Your task to perform on an android device: find which apps use the phone's location Image 0: 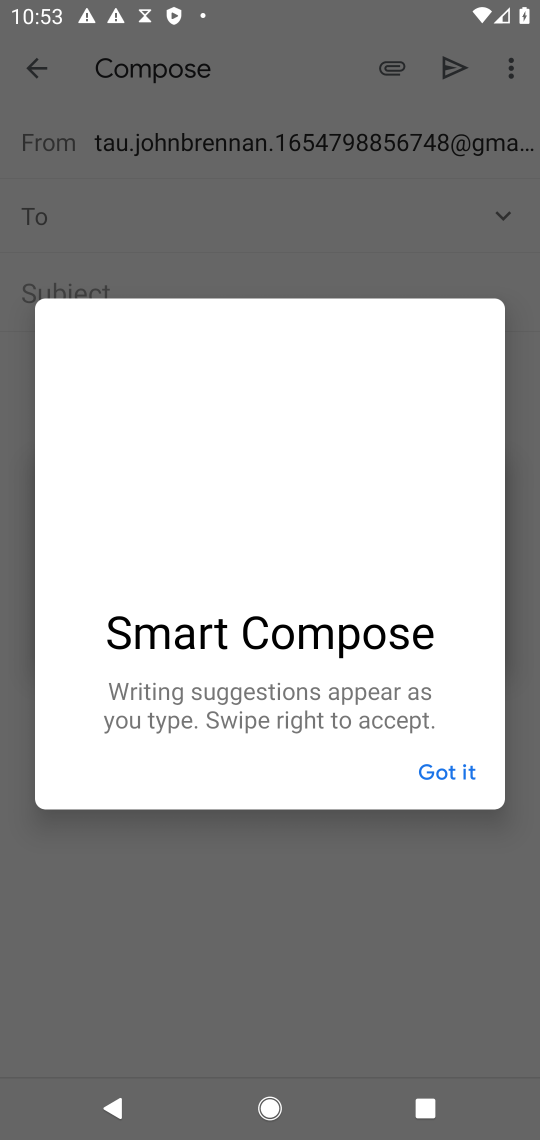
Step 0: press back button
Your task to perform on an android device: find which apps use the phone's location Image 1: 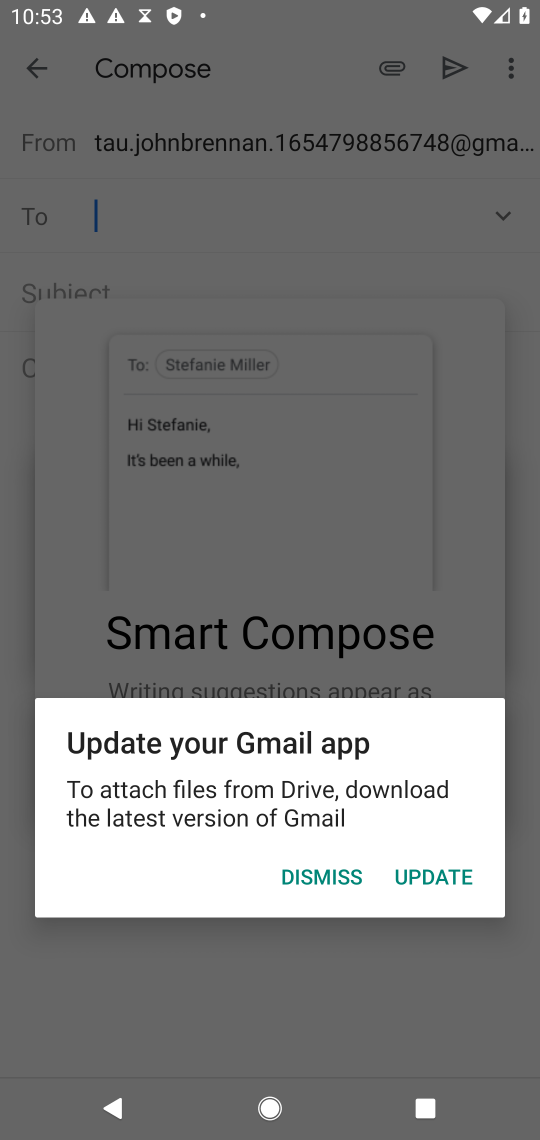
Step 1: press home button
Your task to perform on an android device: find which apps use the phone's location Image 2: 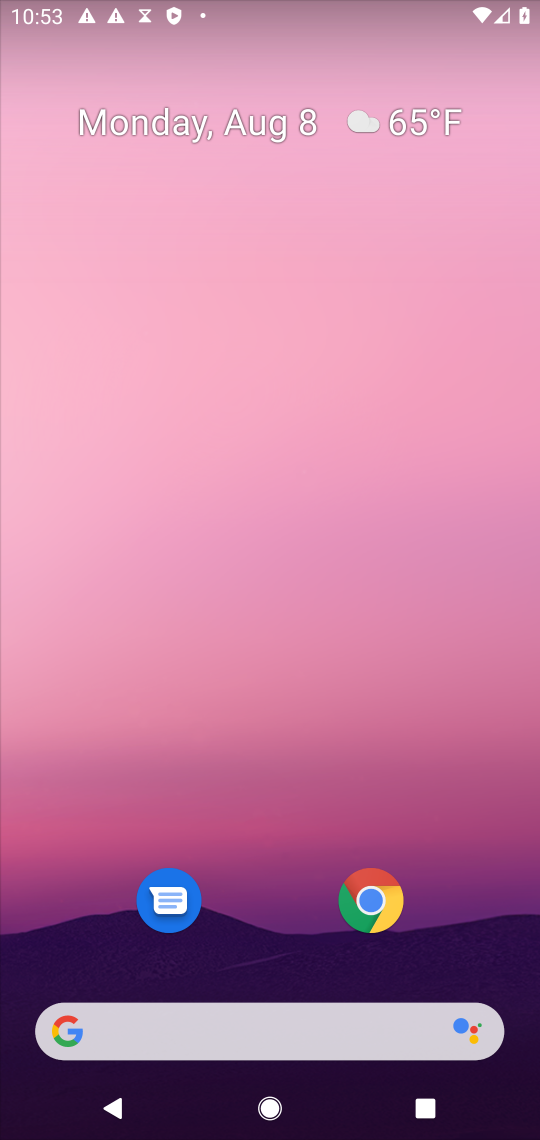
Step 2: drag from (248, 883) to (191, 336)
Your task to perform on an android device: find which apps use the phone's location Image 3: 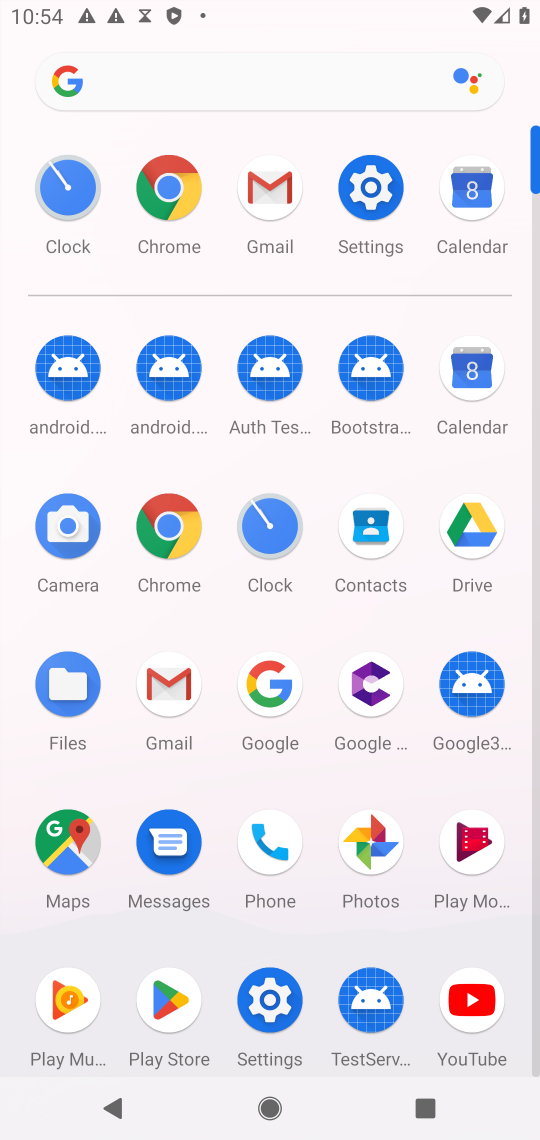
Step 3: click (271, 1014)
Your task to perform on an android device: find which apps use the phone's location Image 4: 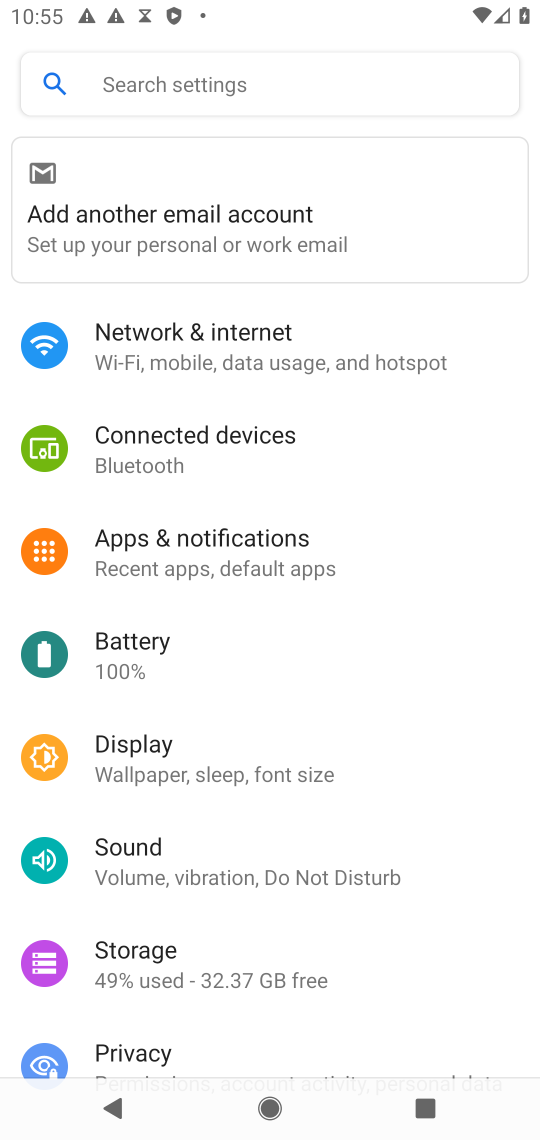
Step 4: drag from (170, 877) to (165, 648)
Your task to perform on an android device: find which apps use the phone's location Image 5: 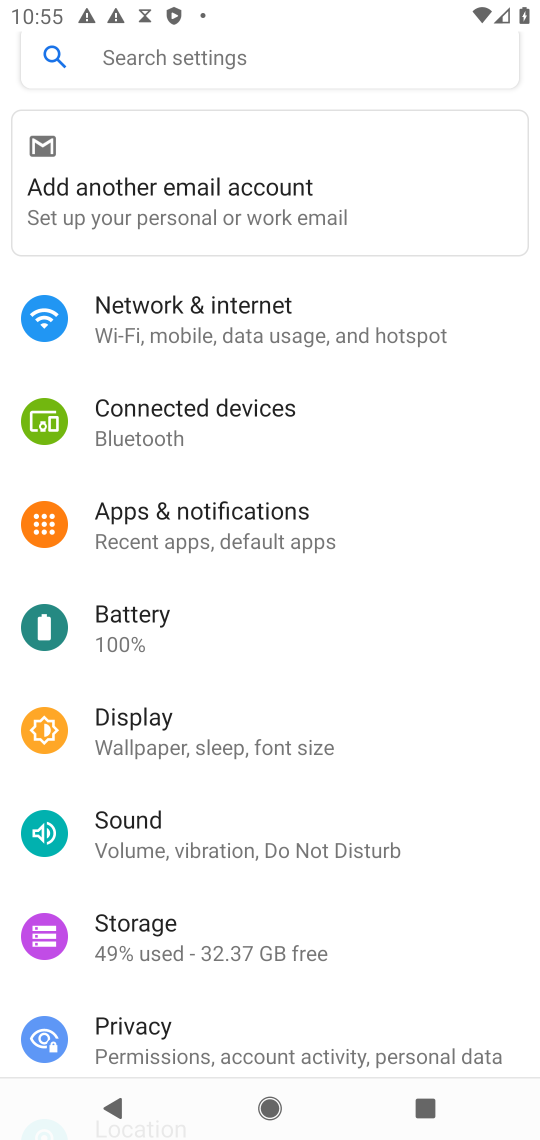
Step 5: drag from (187, 969) to (182, 638)
Your task to perform on an android device: find which apps use the phone's location Image 6: 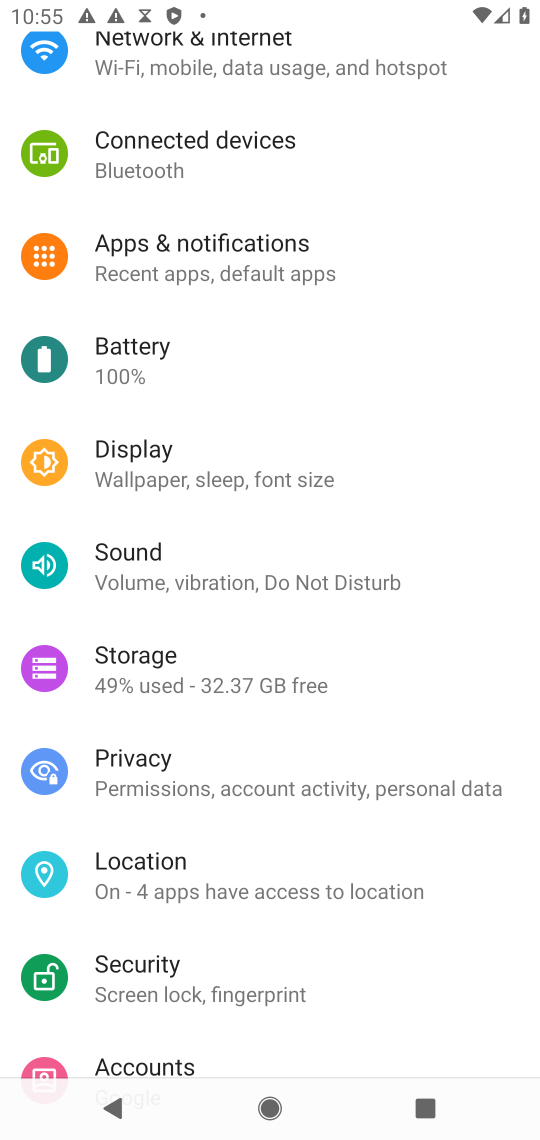
Step 6: click (158, 900)
Your task to perform on an android device: find which apps use the phone's location Image 7: 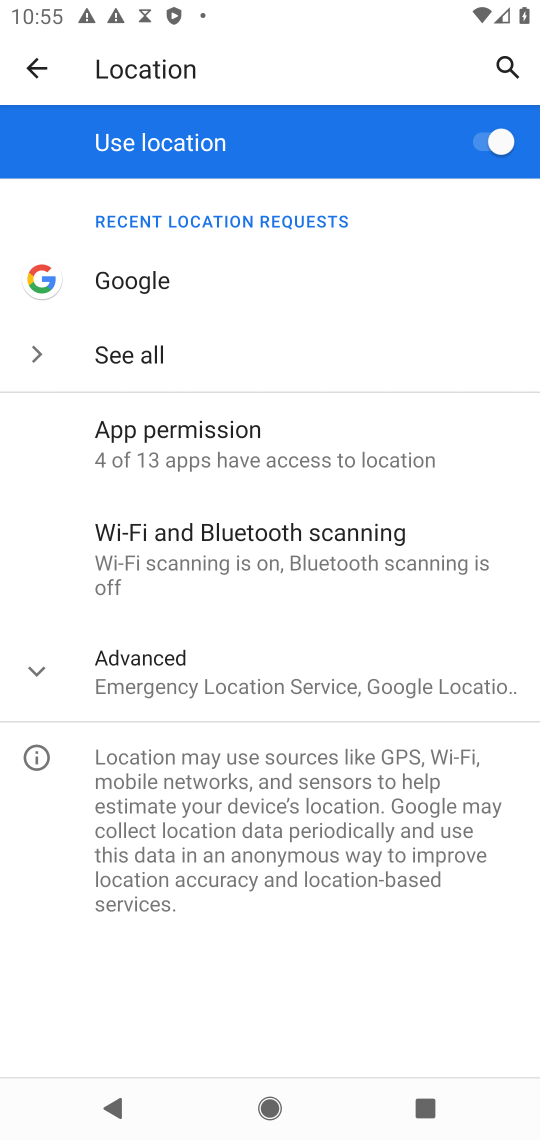
Step 7: click (171, 433)
Your task to perform on an android device: find which apps use the phone's location Image 8: 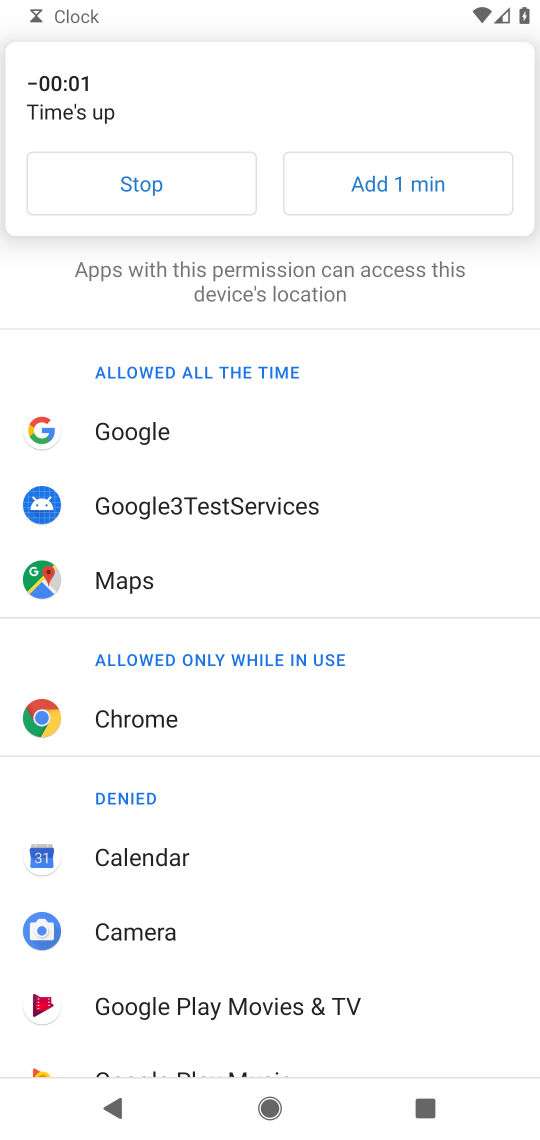
Step 8: task complete